Your task to perform on an android device: Open the stopwatch Image 0: 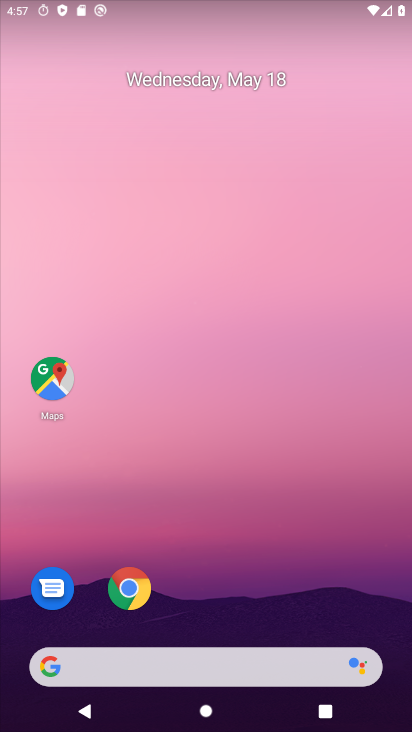
Step 0: drag from (196, 586) to (266, 42)
Your task to perform on an android device: Open the stopwatch Image 1: 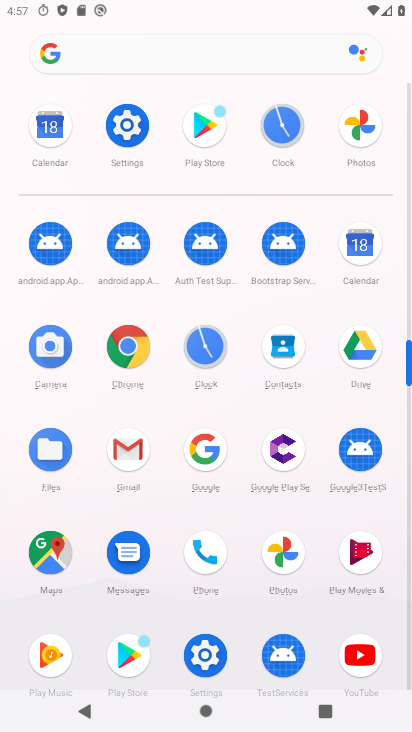
Step 1: click (279, 120)
Your task to perform on an android device: Open the stopwatch Image 2: 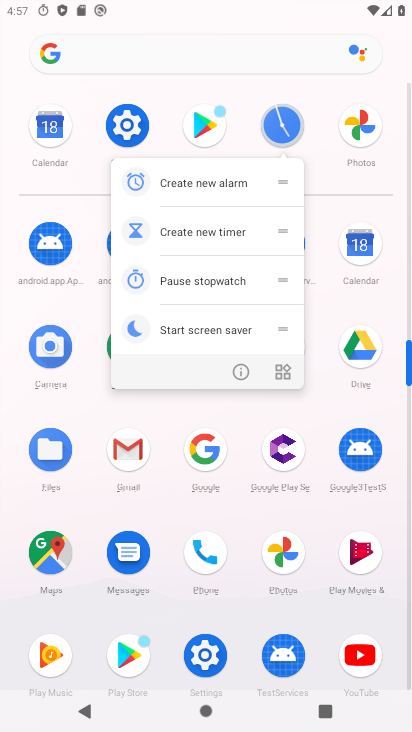
Step 2: click (281, 126)
Your task to perform on an android device: Open the stopwatch Image 3: 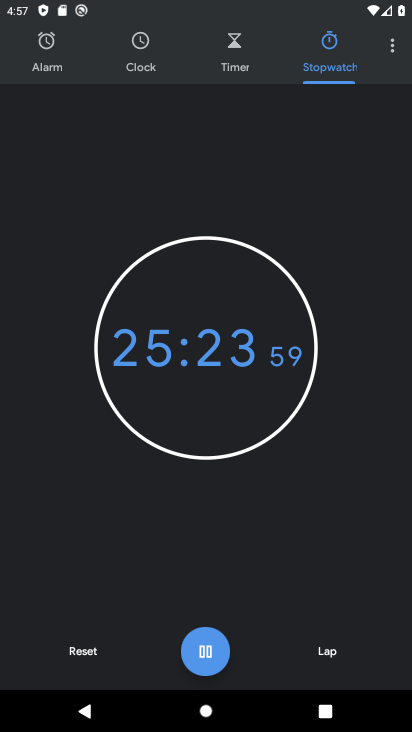
Step 3: click (320, 55)
Your task to perform on an android device: Open the stopwatch Image 4: 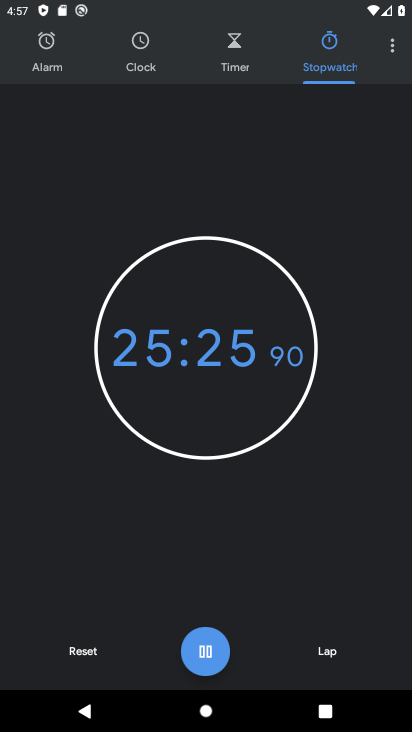
Step 4: task complete